Your task to perform on an android device: What is the news today? Image 0: 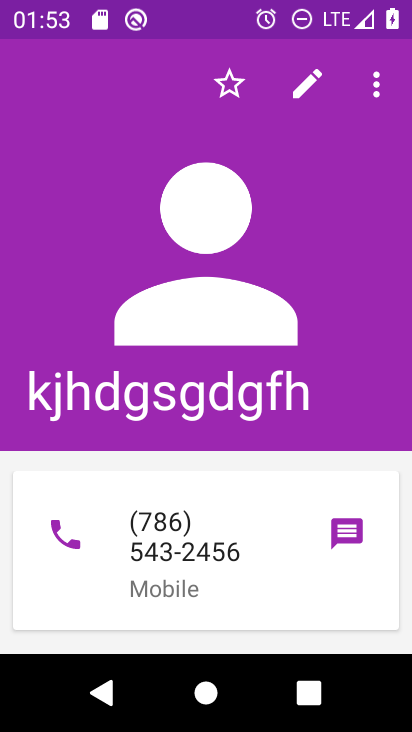
Step 0: press home button
Your task to perform on an android device: What is the news today? Image 1: 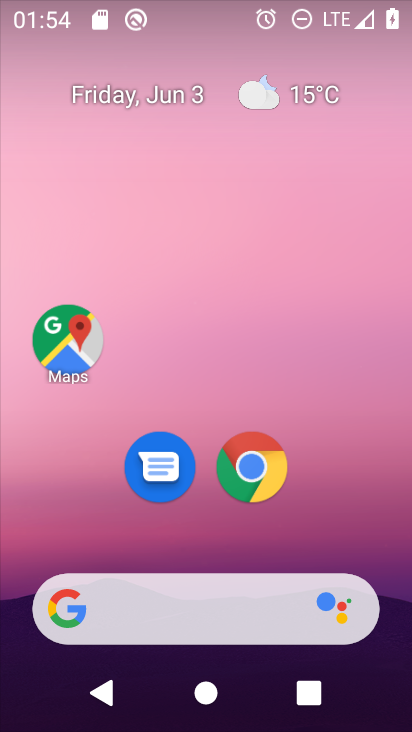
Step 1: task complete